Your task to perform on an android device: Go to accessibility settings Image 0: 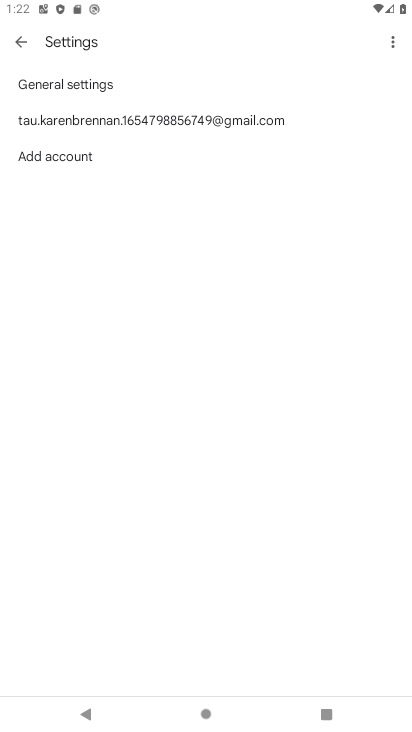
Step 0: press home button
Your task to perform on an android device: Go to accessibility settings Image 1: 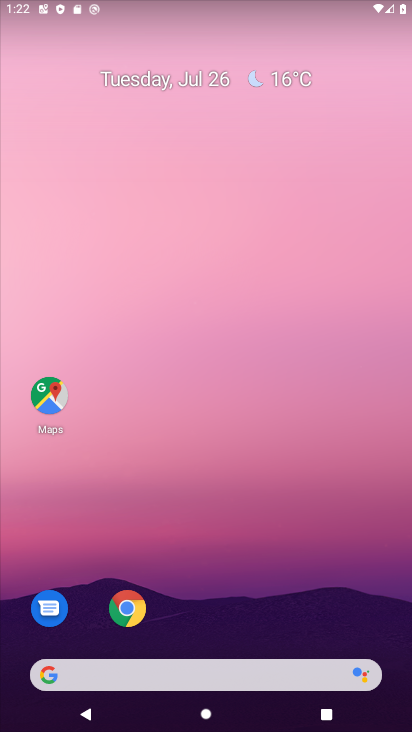
Step 1: drag from (232, 632) to (87, 3)
Your task to perform on an android device: Go to accessibility settings Image 2: 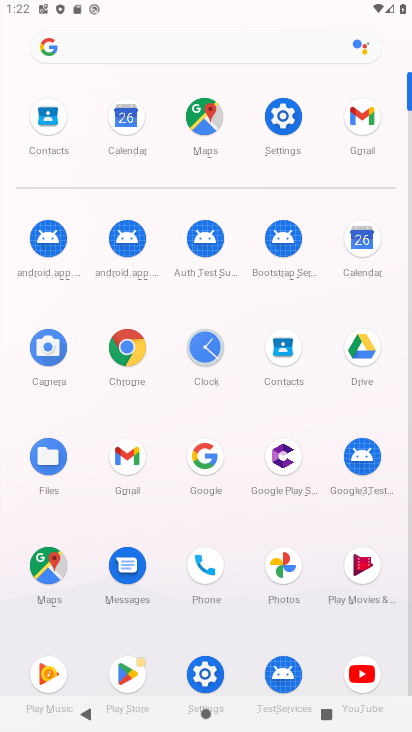
Step 2: click (257, 146)
Your task to perform on an android device: Go to accessibility settings Image 3: 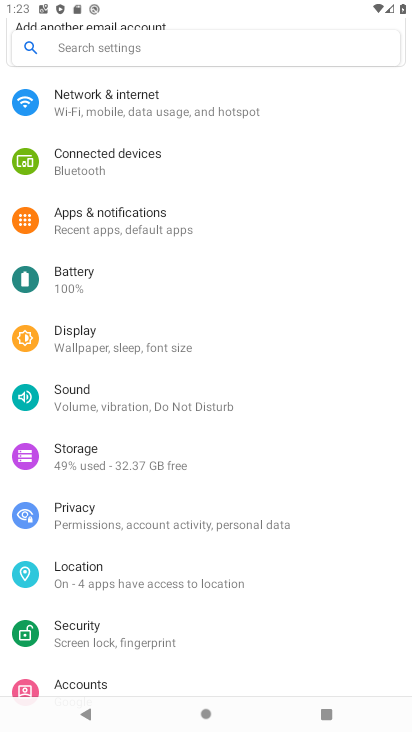
Step 3: drag from (106, 668) to (116, 294)
Your task to perform on an android device: Go to accessibility settings Image 4: 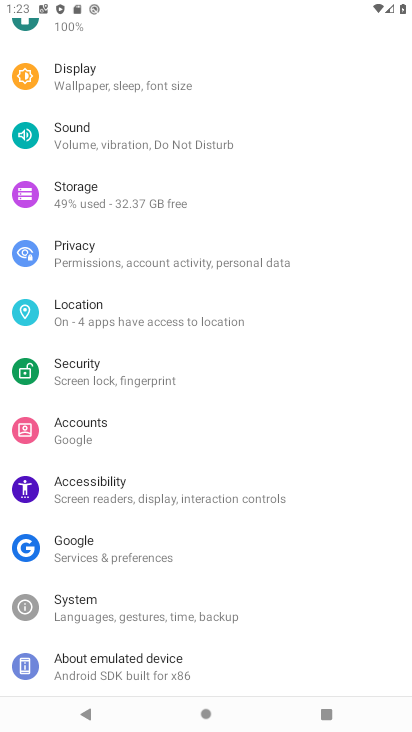
Step 4: click (153, 509)
Your task to perform on an android device: Go to accessibility settings Image 5: 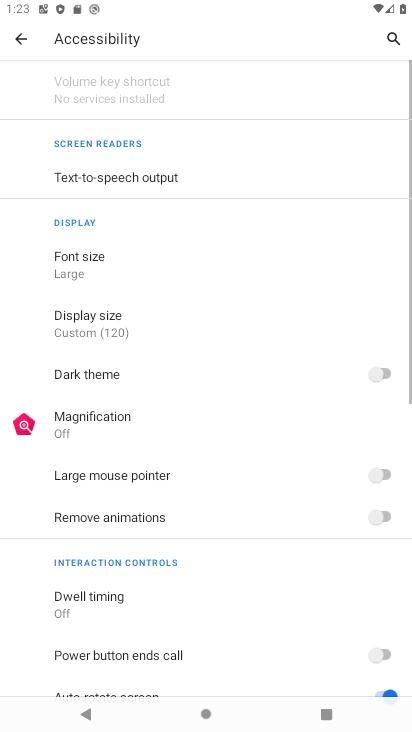
Step 5: task complete